Your task to perform on an android device: Add "macbook pro" to the cart on bestbuy, then select checkout. Image 0: 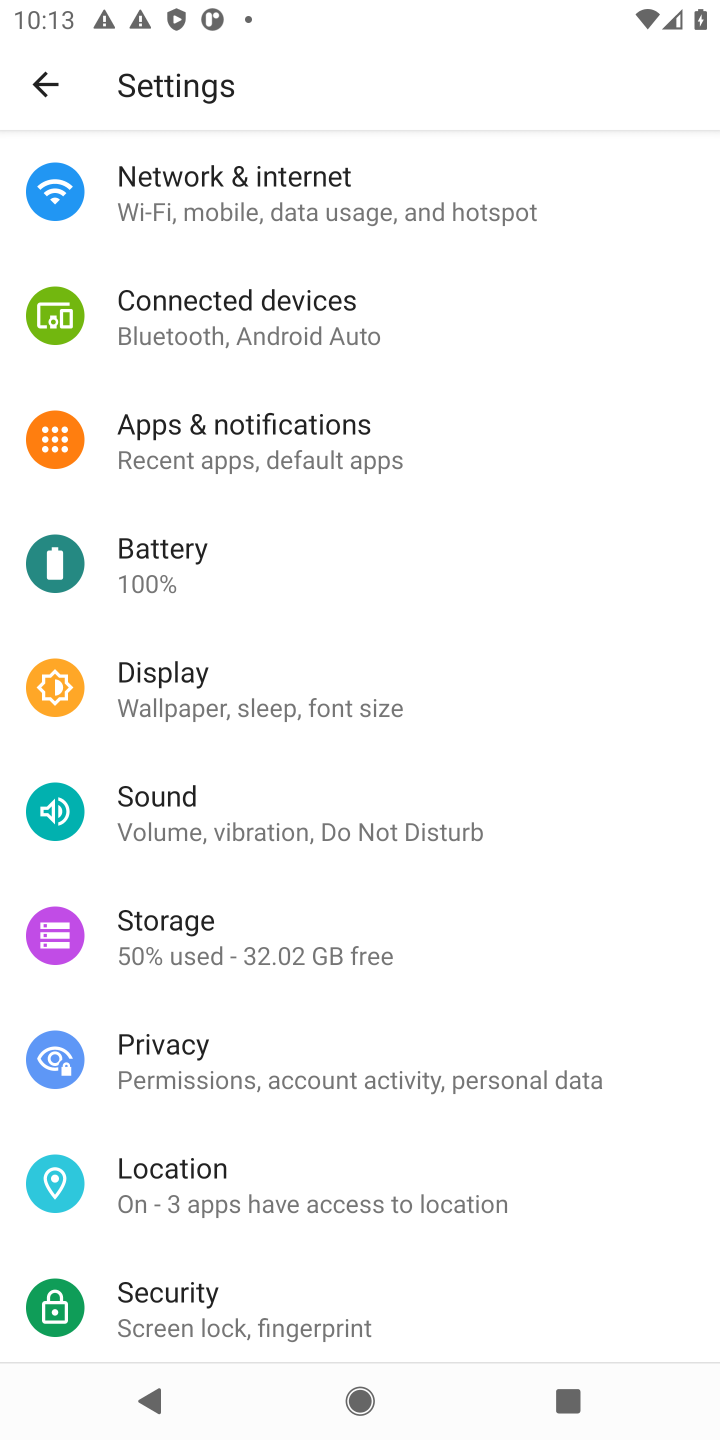
Step 0: press home button
Your task to perform on an android device: Add "macbook pro" to the cart on bestbuy, then select checkout. Image 1: 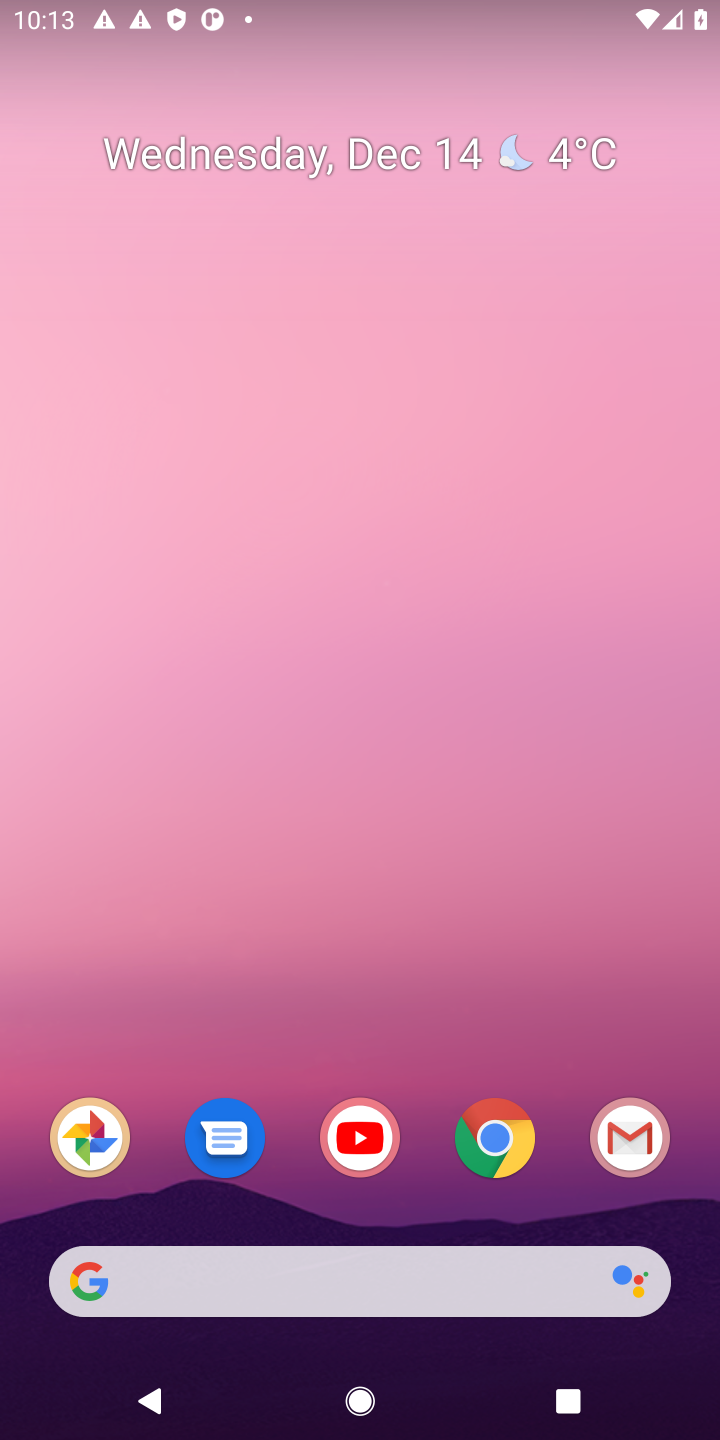
Step 1: click (499, 1152)
Your task to perform on an android device: Add "macbook pro" to the cart on bestbuy, then select checkout. Image 2: 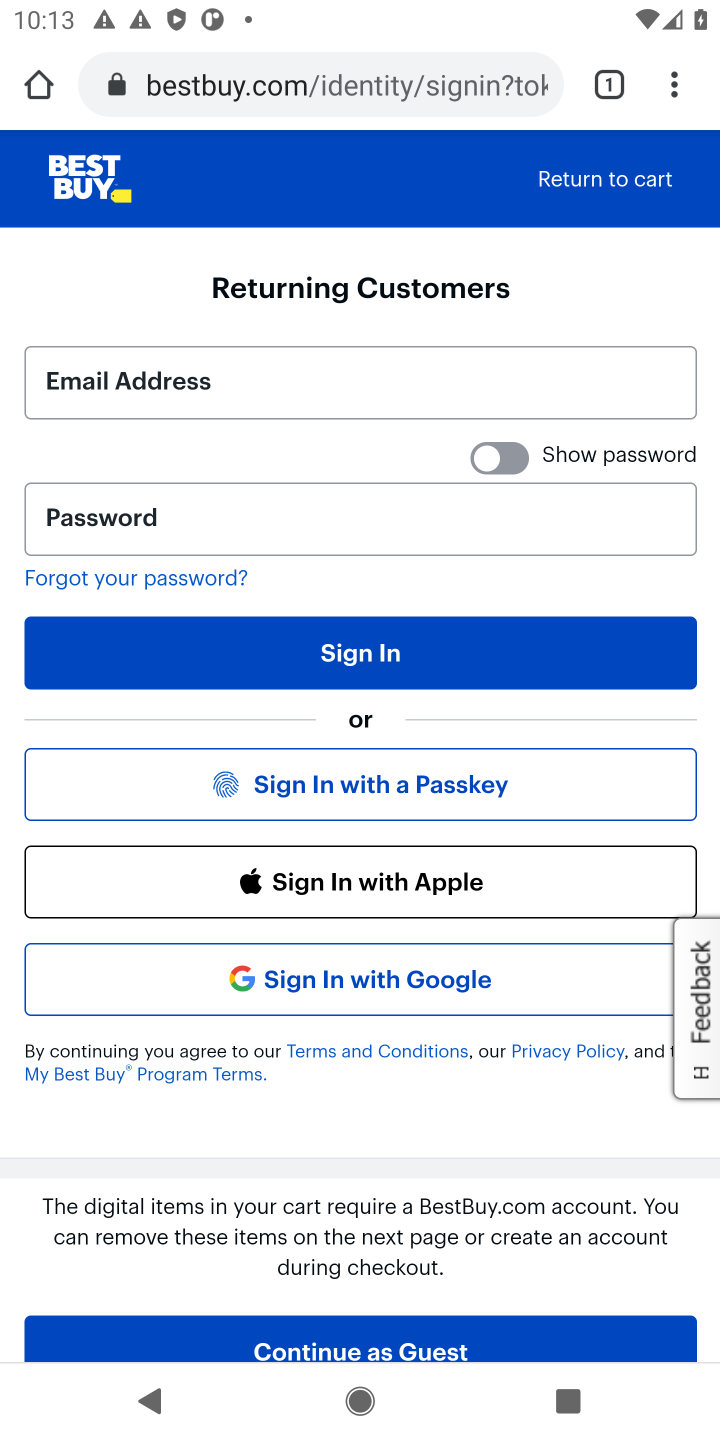
Step 2: press back button
Your task to perform on an android device: Add "macbook pro" to the cart on bestbuy, then select checkout. Image 3: 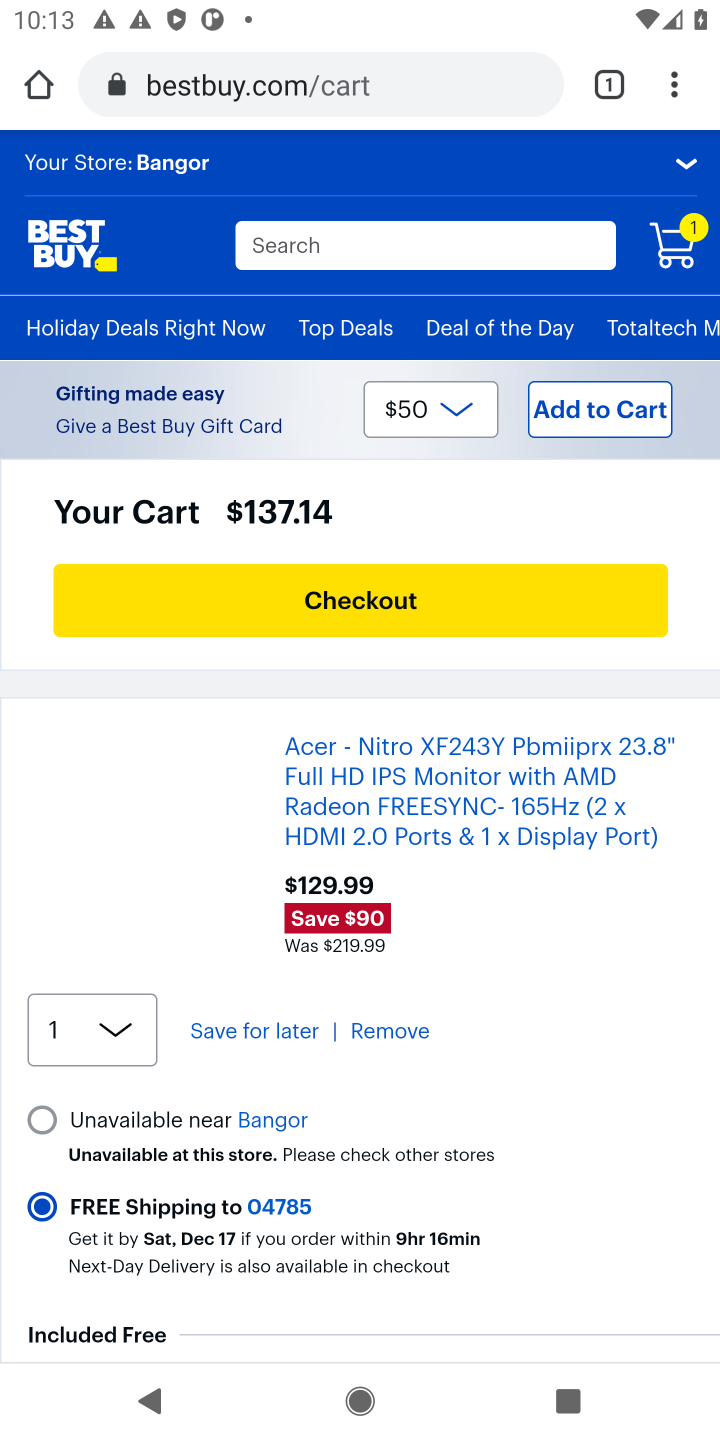
Step 3: click (345, 252)
Your task to perform on an android device: Add "macbook pro" to the cart on bestbuy, then select checkout. Image 4: 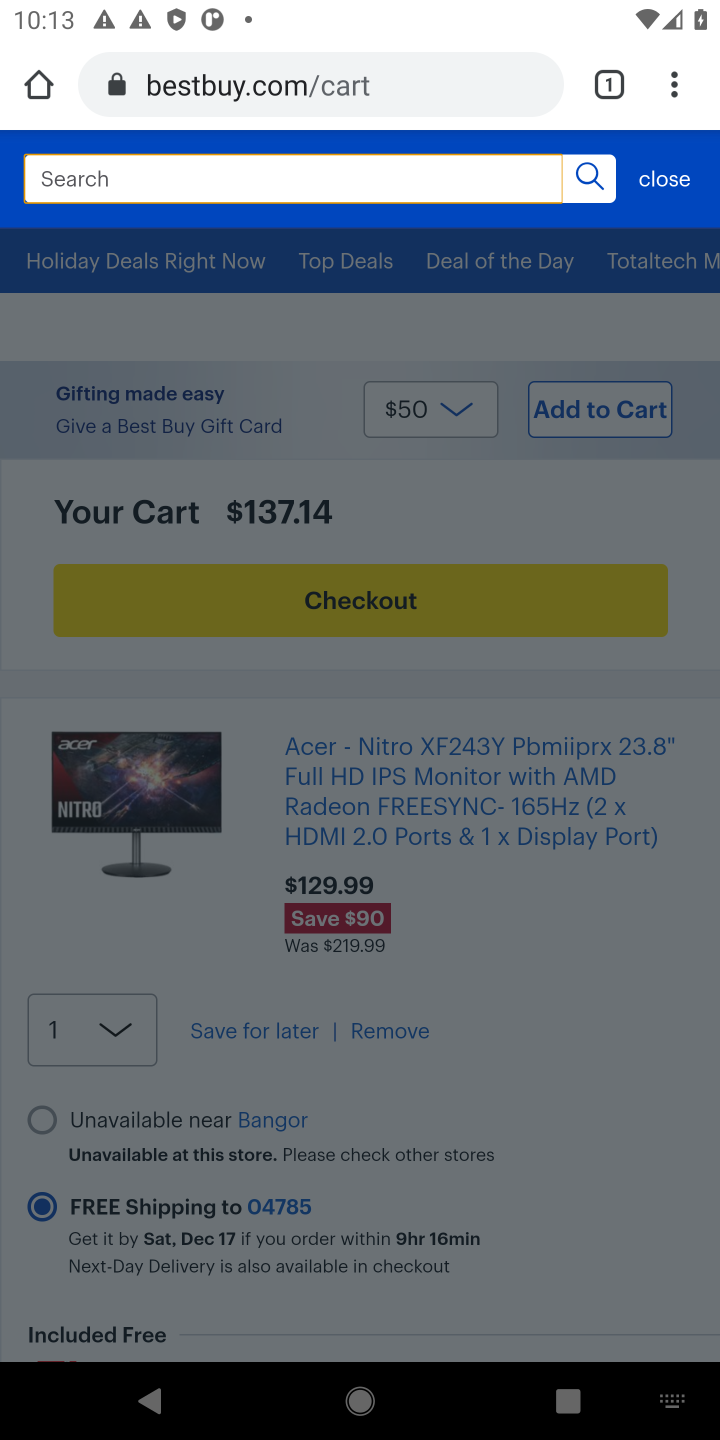
Step 4: type "macbook pro"
Your task to perform on an android device: Add "macbook pro" to the cart on bestbuy, then select checkout. Image 5: 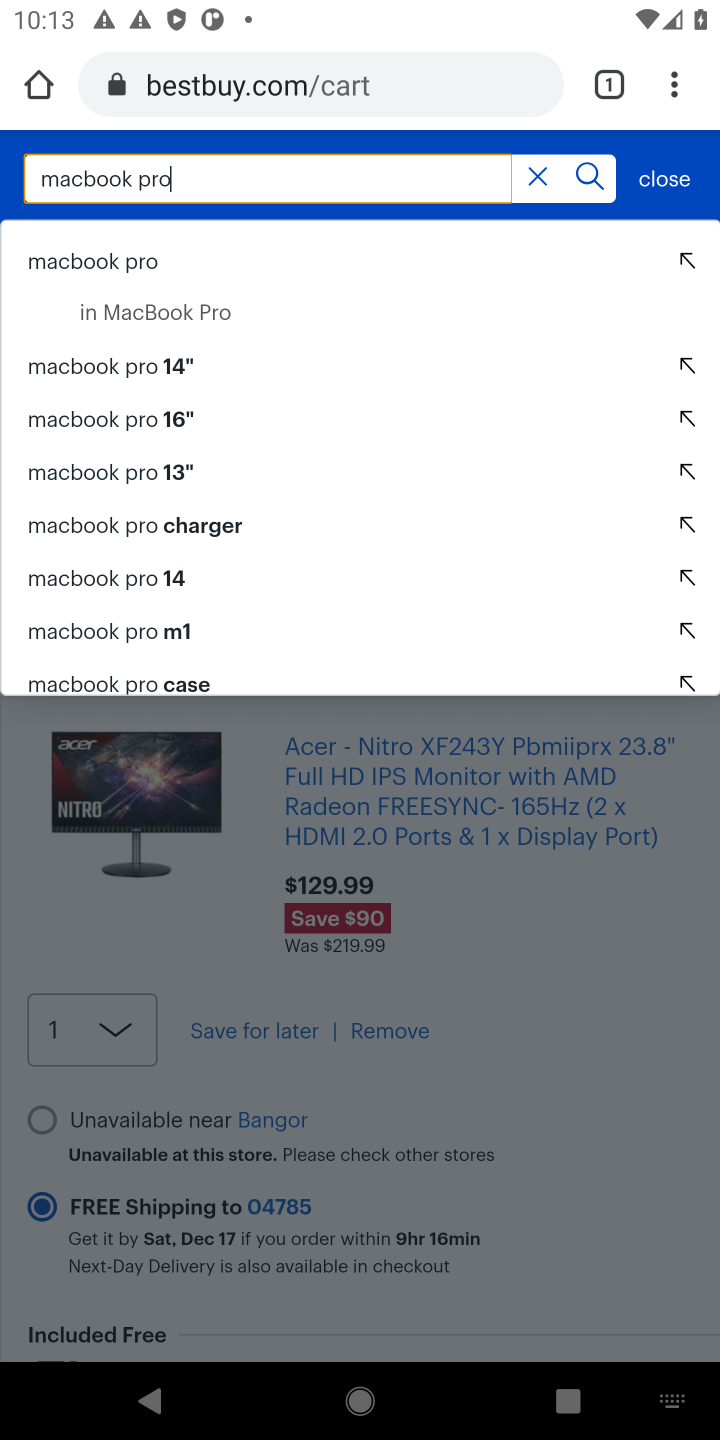
Step 5: click (100, 263)
Your task to perform on an android device: Add "macbook pro" to the cart on bestbuy, then select checkout. Image 6: 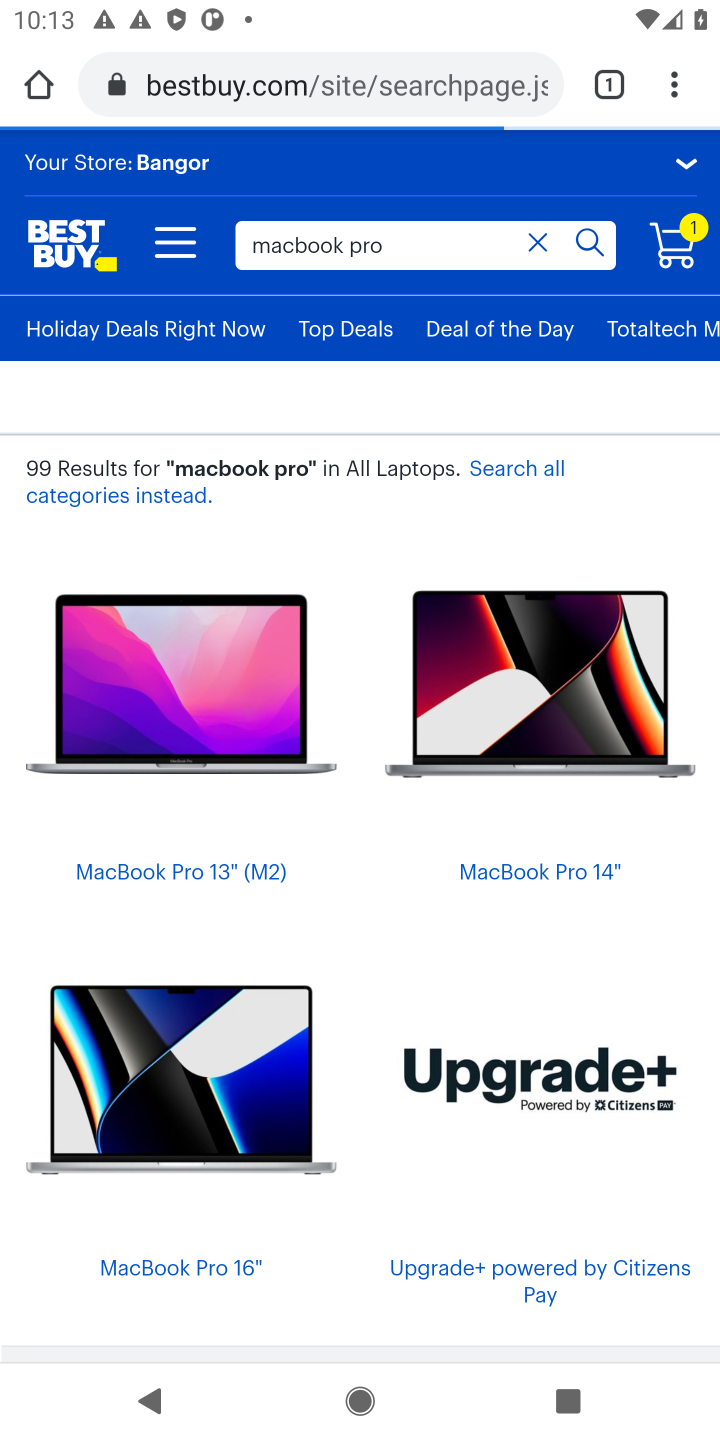
Step 6: drag from (292, 874) to (310, 239)
Your task to perform on an android device: Add "macbook pro" to the cart on bestbuy, then select checkout. Image 7: 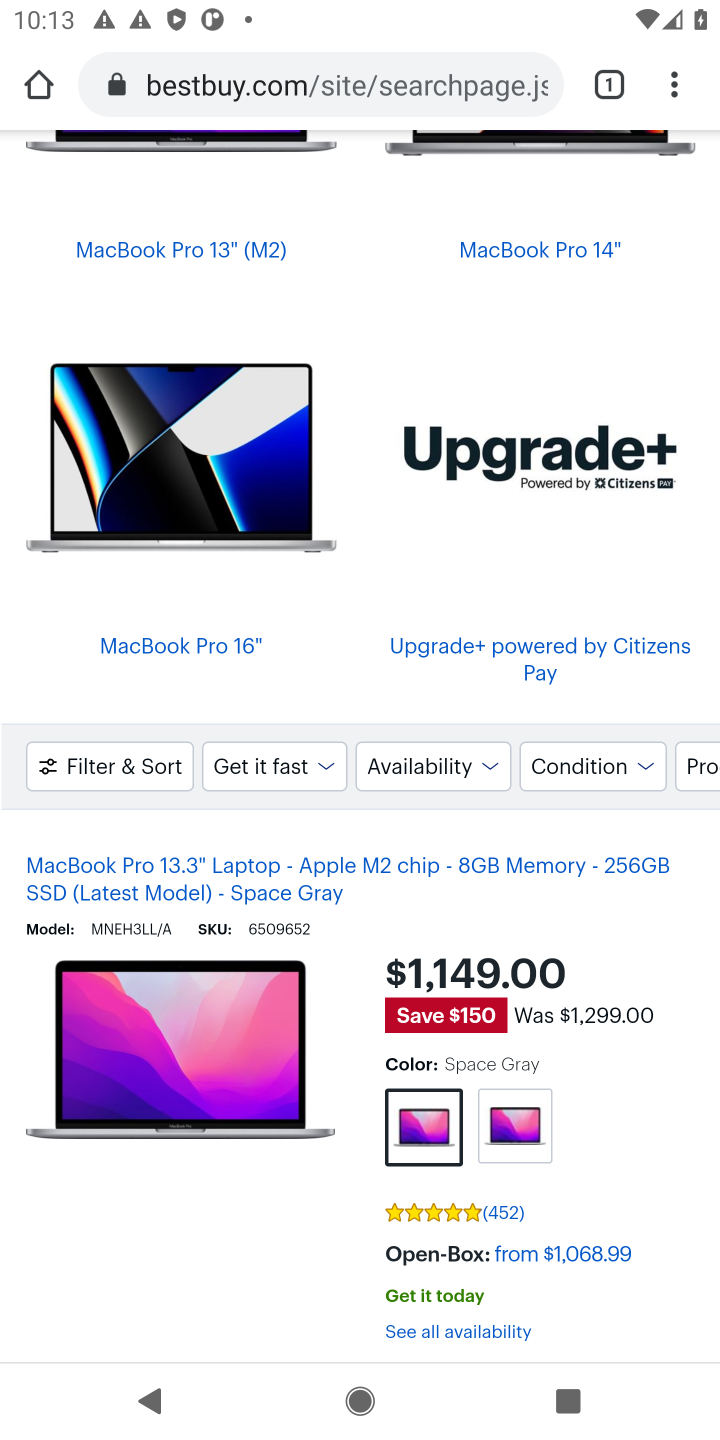
Step 7: drag from (236, 858) to (251, 407)
Your task to perform on an android device: Add "macbook pro" to the cart on bestbuy, then select checkout. Image 8: 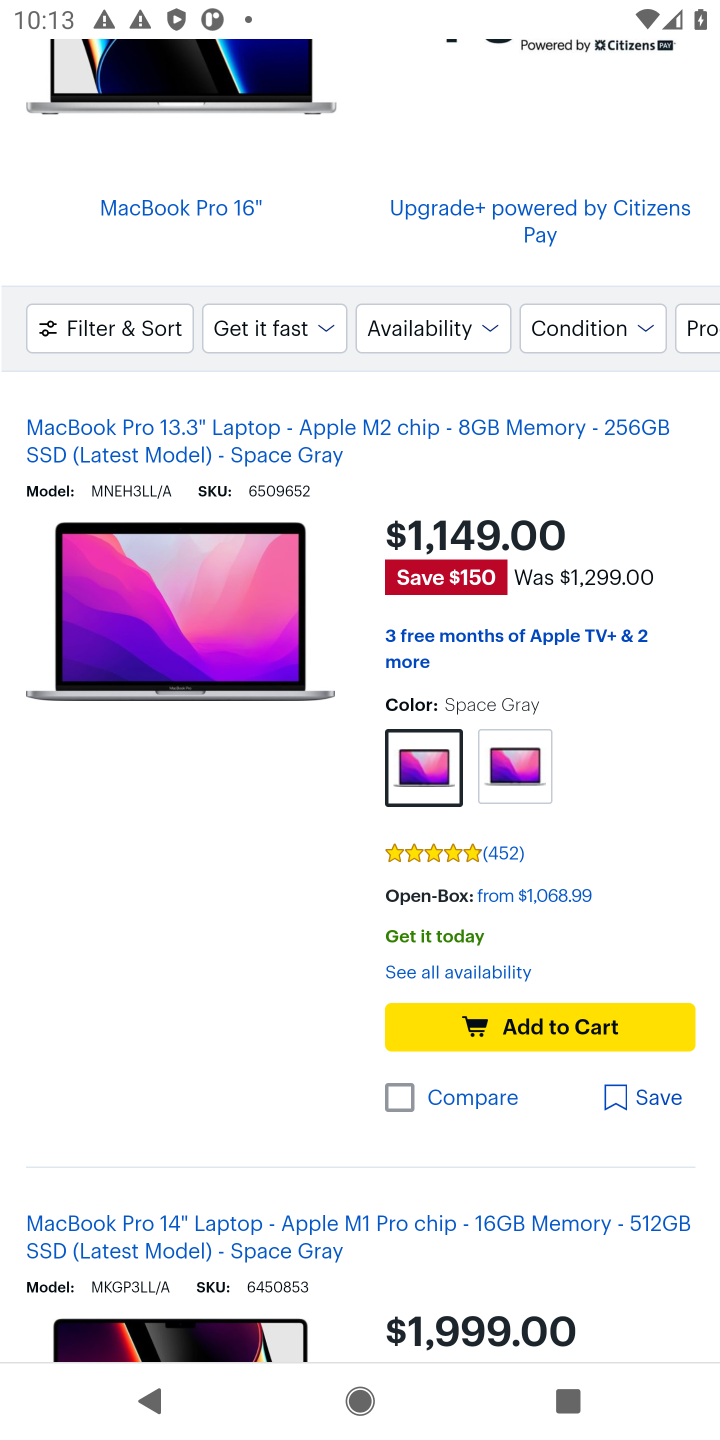
Step 8: click (492, 1030)
Your task to perform on an android device: Add "macbook pro" to the cart on bestbuy, then select checkout. Image 9: 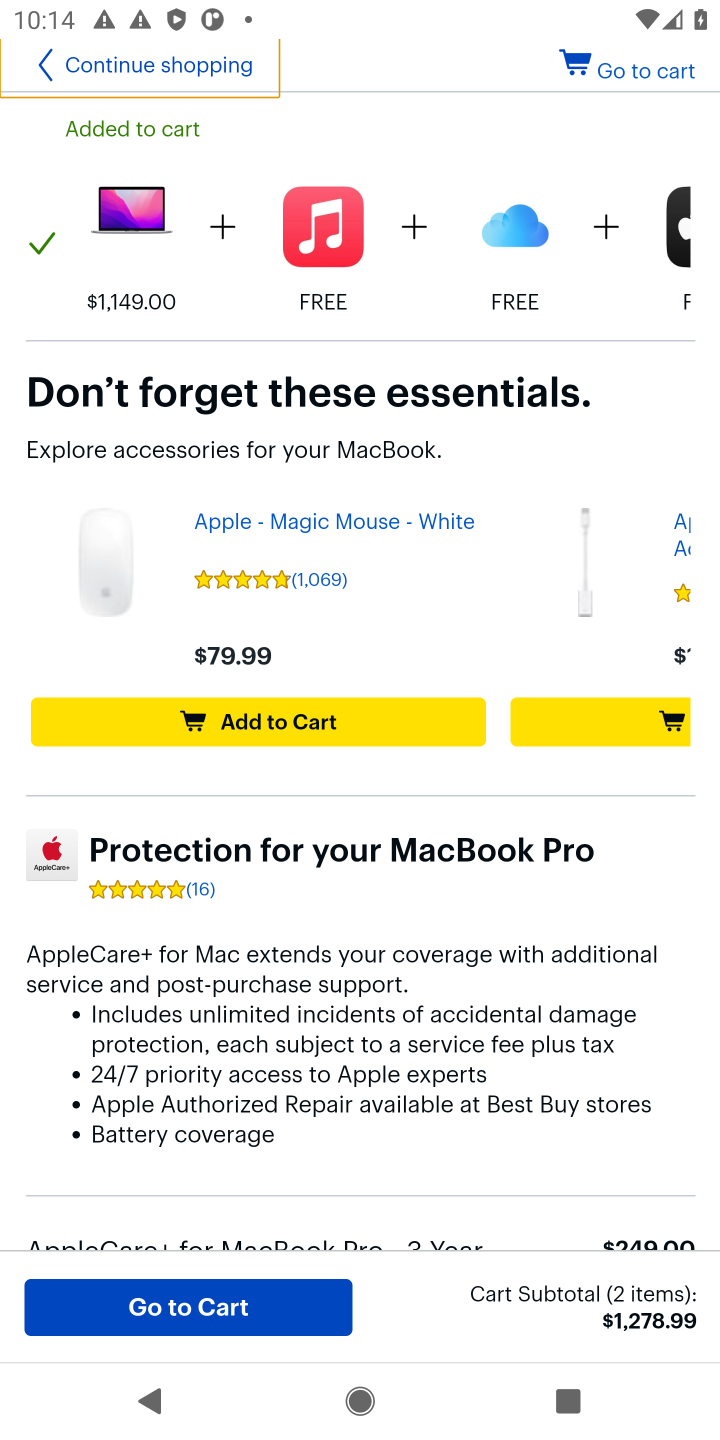
Step 9: click (629, 78)
Your task to perform on an android device: Add "macbook pro" to the cart on bestbuy, then select checkout. Image 10: 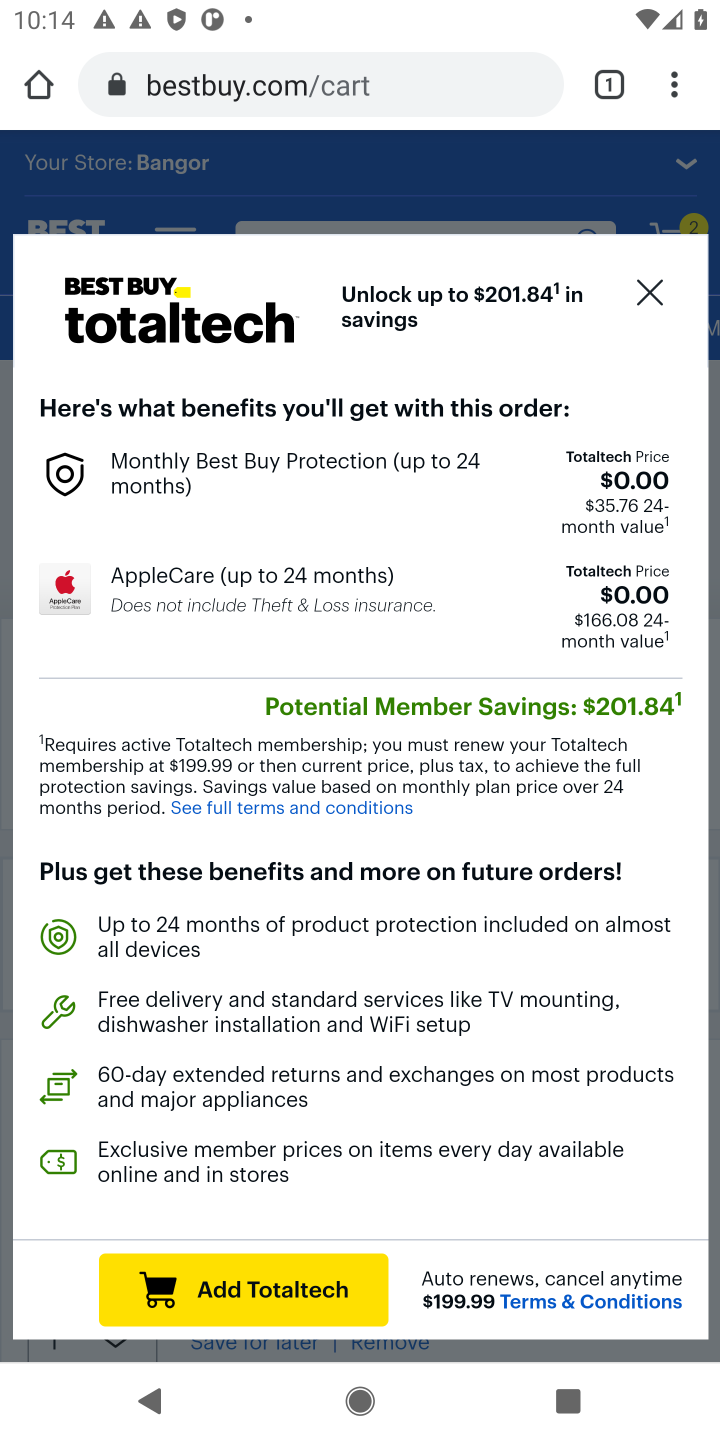
Step 10: click (650, 291)
Your task to perform on an android device: Add "macbook pro" to the cart on bestbuy, then select checkout. Image 11: 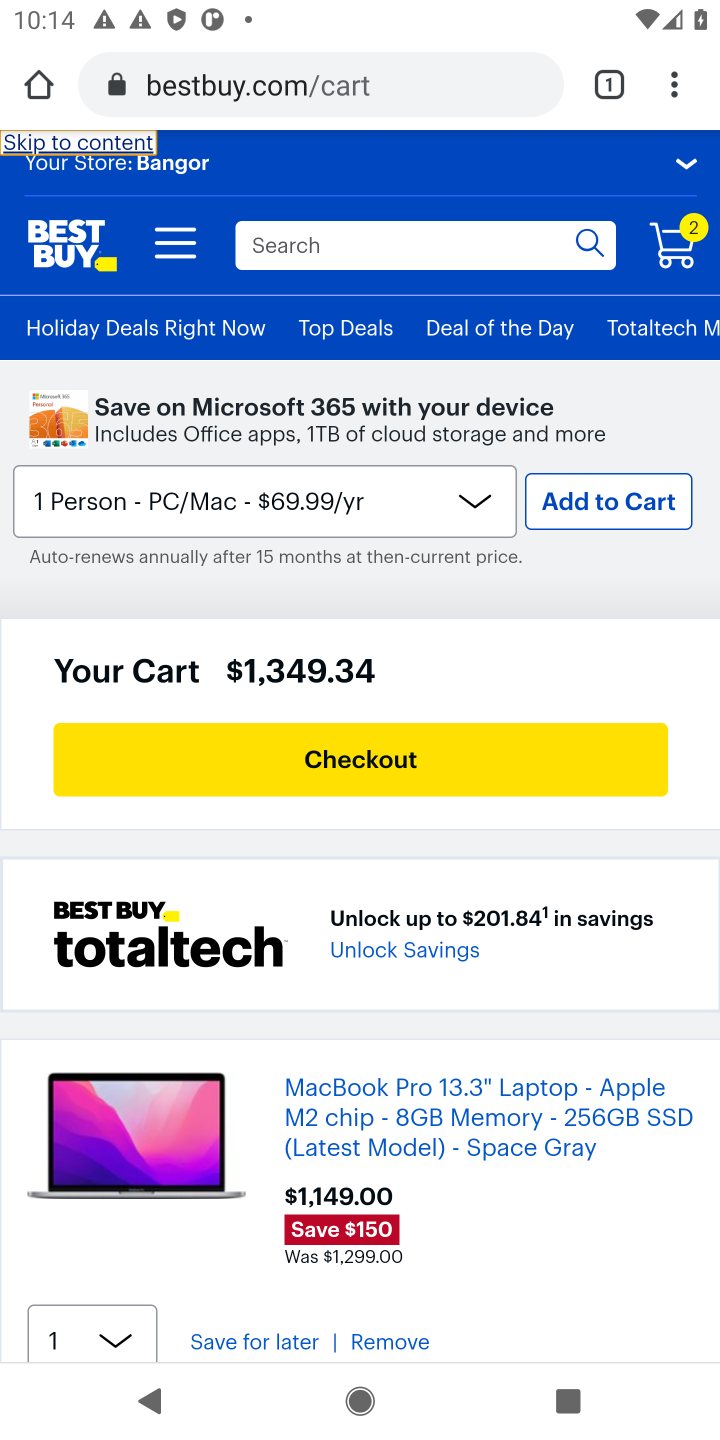
Step 11: click (352, 752)
Your task to perform on an android device: Add "macbook pro" to the cart on bestbuy, then select checkout. Image 12: 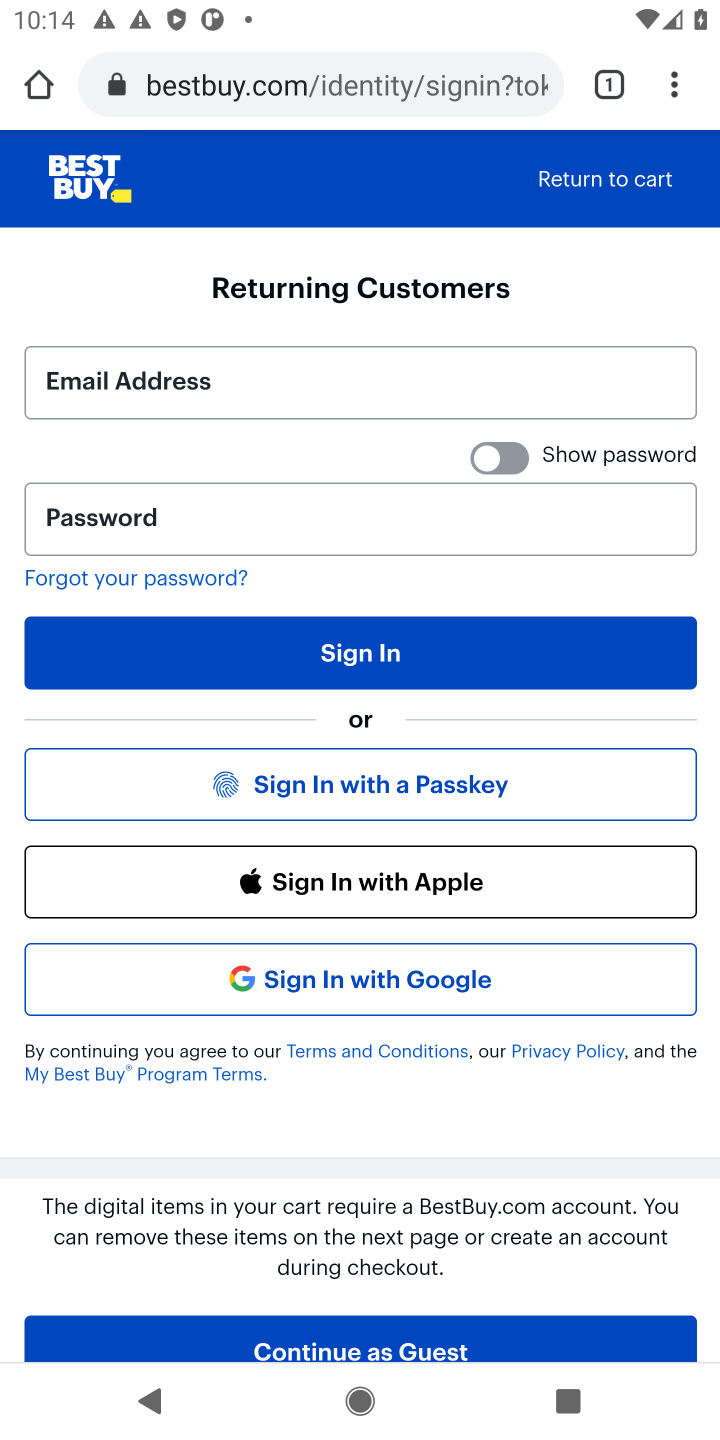
Step 12: task complete